Your task to perform on an android device: refresh tabs in the chrome app Image 0: 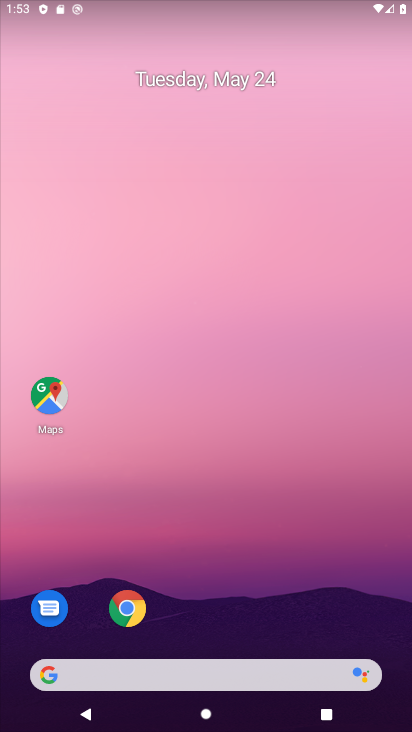
Step 0: drag from (310, 615) to (287, 55)
Your task to perform on an android device: refresh tabs in the chrome app Image 1: 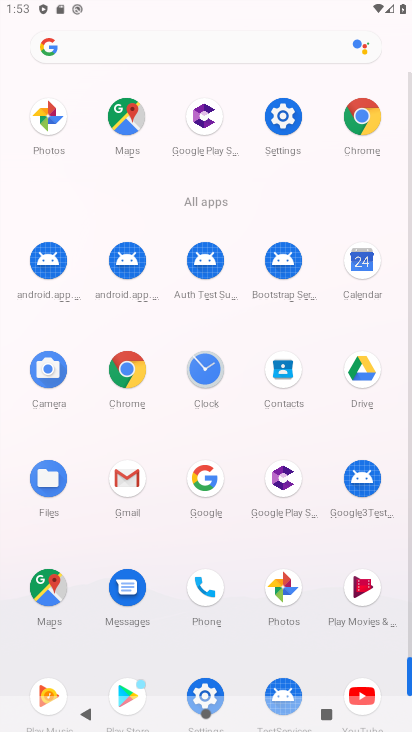
Step 1: drag from (4, 530) to (15, 221)
Your task to perform on an android device: refresh tabs in the chrome app Image 2: 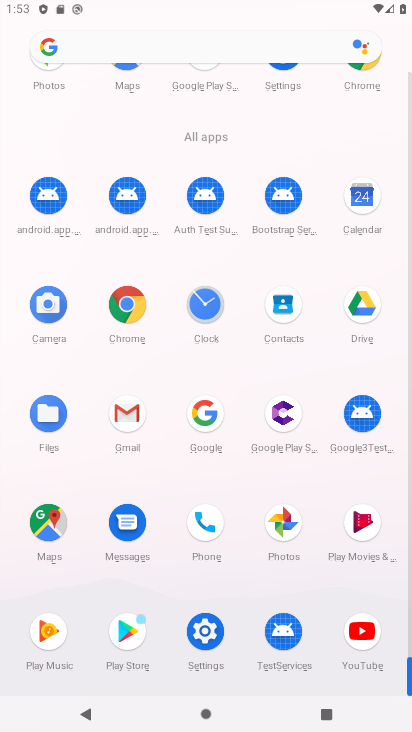
Step 2: click (124, 303)
Your task to perform on an android device: refresh tabs in the chrome app Image 3: 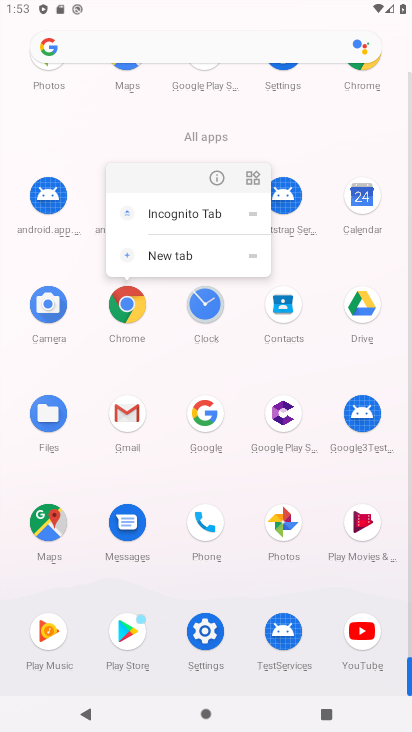
Step 3: click (124, 303)
Your task to perform on an android device: refresh tabs in the chrome app Image 4: 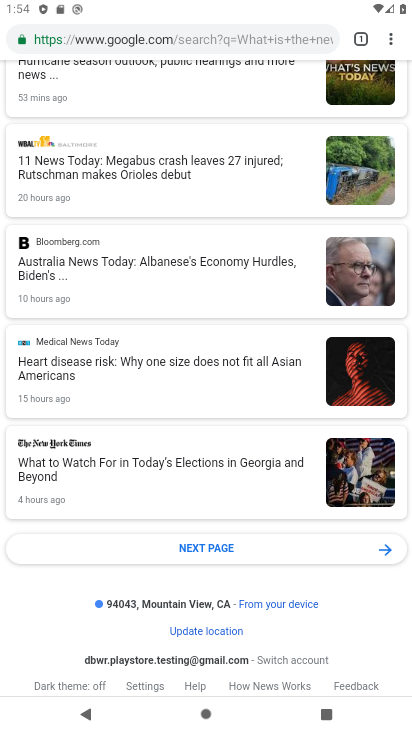
Step 4: task complete